Your task to perform on an android device: turn on improve location accuracy Image 0: 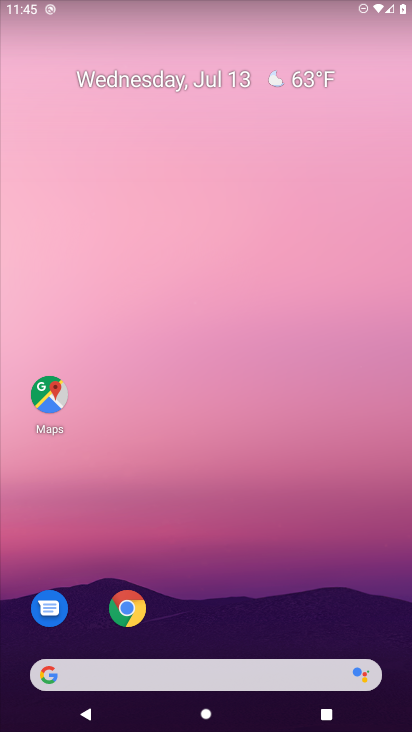
Step 0: press home button
Your task to perform on an android device: turn on improve location accuracy Image 1: 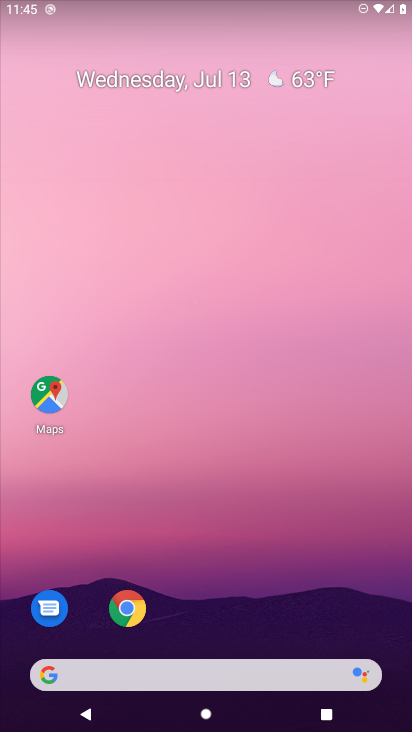
Step 1: drag from (222, 628) to (271, 30)
Your task to perform on an android device: turn on improve location accuracy Image 2: 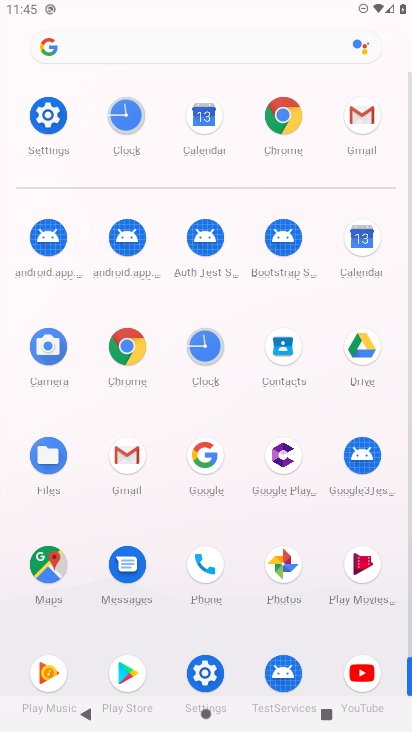
Step 2: click (47, 124)
Your task to perform on an android device: turn on improve location accuracy Image 3: 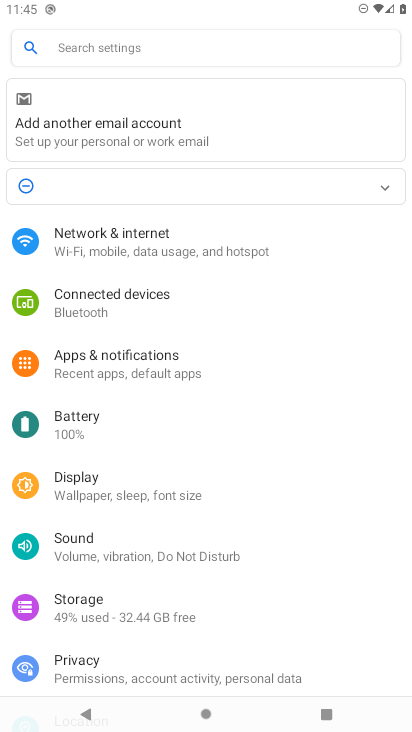
Step 3: drag from (289, 588) to (257, 256)
Your task to perform on an android device: turn on improve location accuracy Image 4: 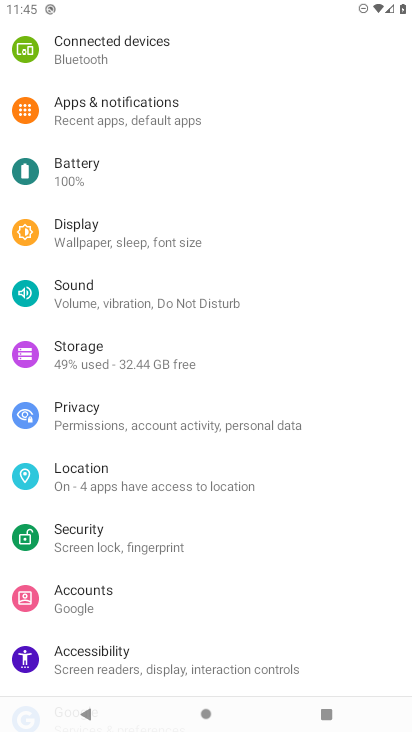
Step 4: click (88, 485)
Your task to perform on an android device: turn on improve location accuracy Image 5: 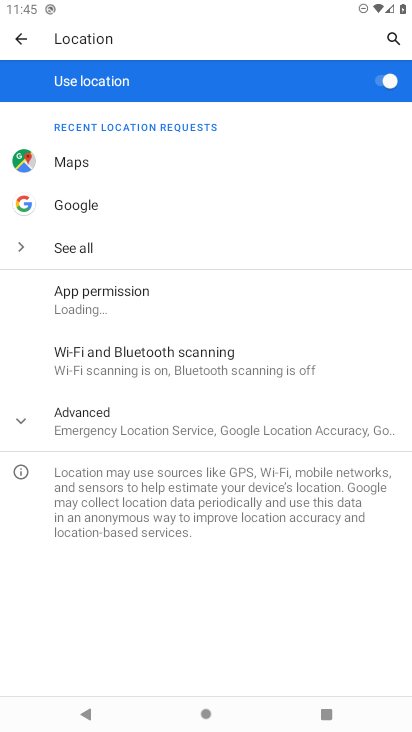
Step 5: click (93, 426)
Your task to perform on an android device: turn on improve location accuracy Image 6: 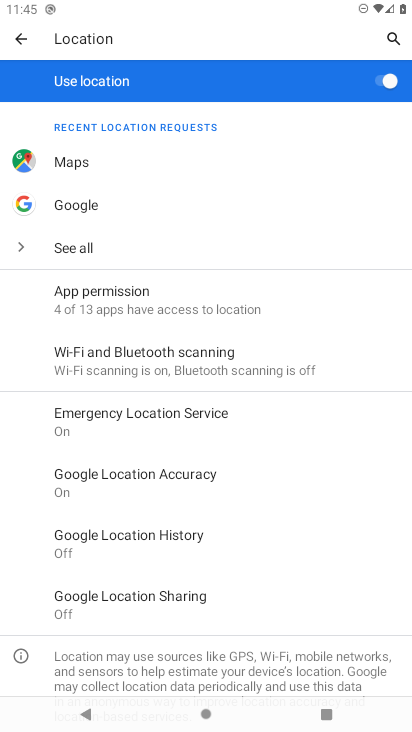
Step 6: click (116, 483)
Your task to perform on an android device: turn on improve location accuracy Image 7: 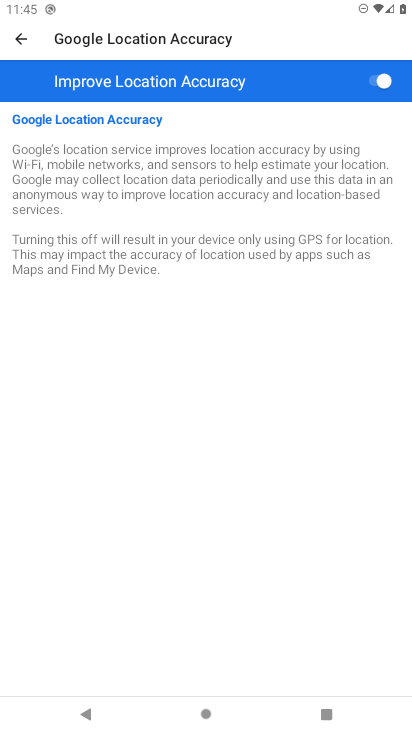
Step 7: task complete